Your task to perform on an android device: check battery use Image 0: 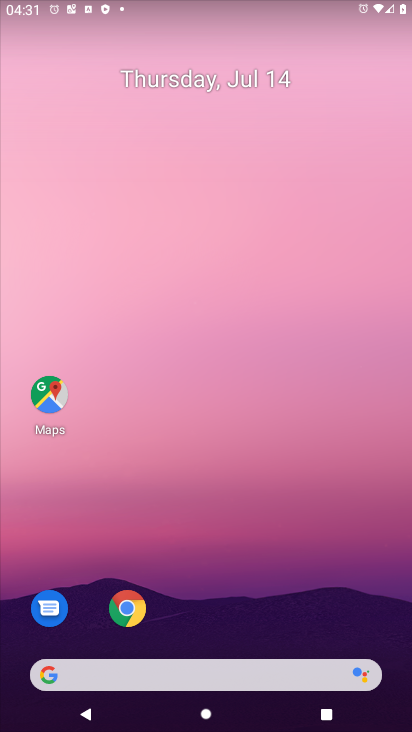
Step 0: drag from (363, 631) to (315, 120)
Your task to perform on an android device: check battery use Image 1: 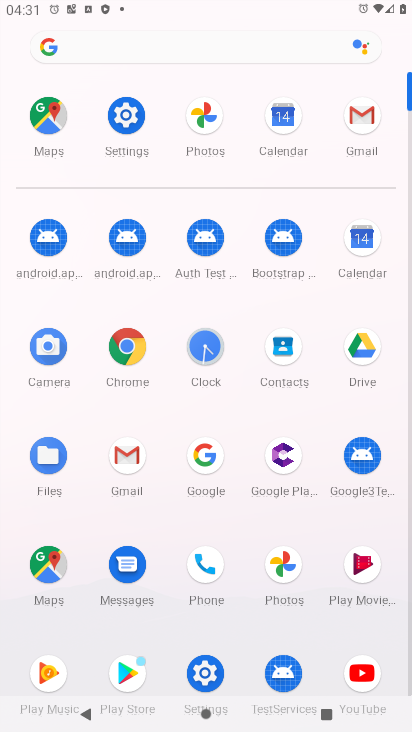
Step 1: click (199, 669)
Your task to perform on an android device: check battery use Image 2: 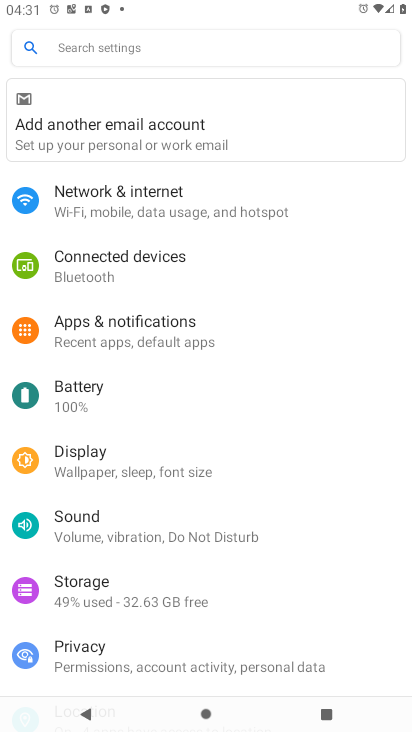
Step 2: click (71, 389)
Your task to perform on an android device: check battery use Image 3: 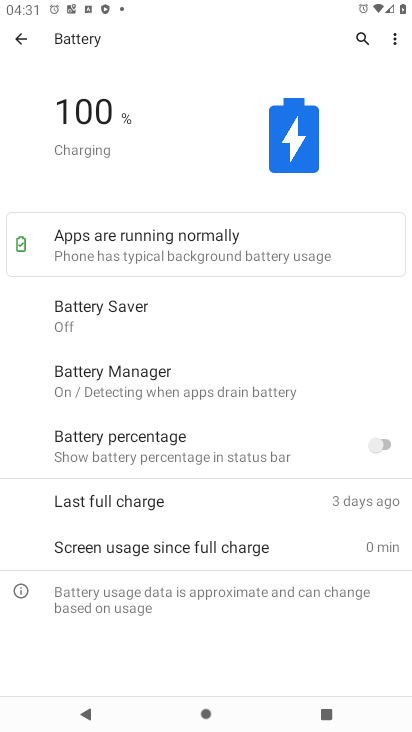
Step 3: click (392, 44)
Your task to perform on an android device: check battery use Image 4: 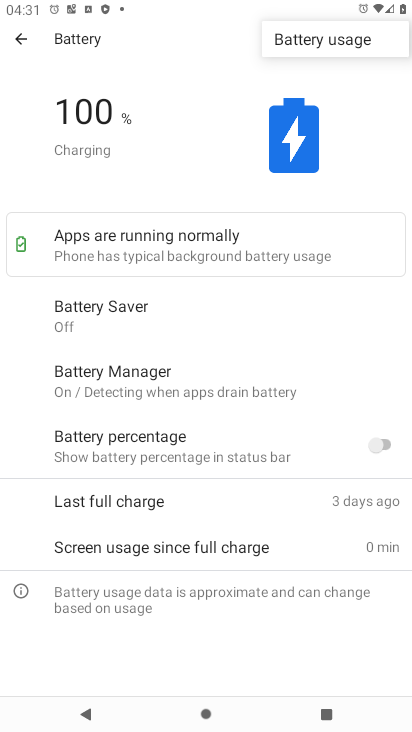
Step 4: click (303, 36)
Your task to perform on an android device: check battery use Image 5: 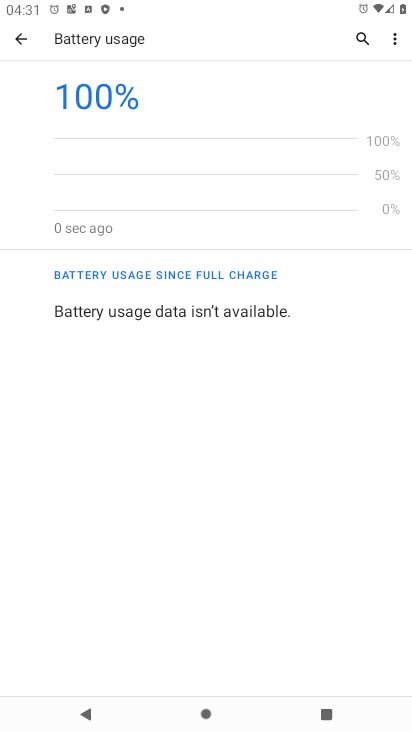
Step 5: task complete